Your task to perform on an android device: Open wifi settings Image 0: 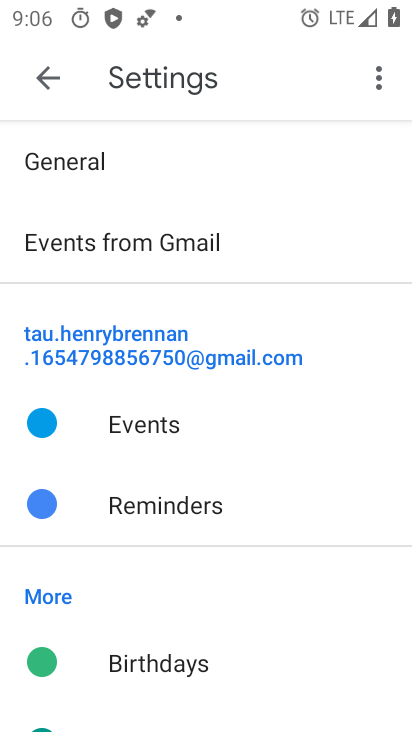
Step 0: press home button
Your task to perform on an android device: Open wifi settings Image 1: 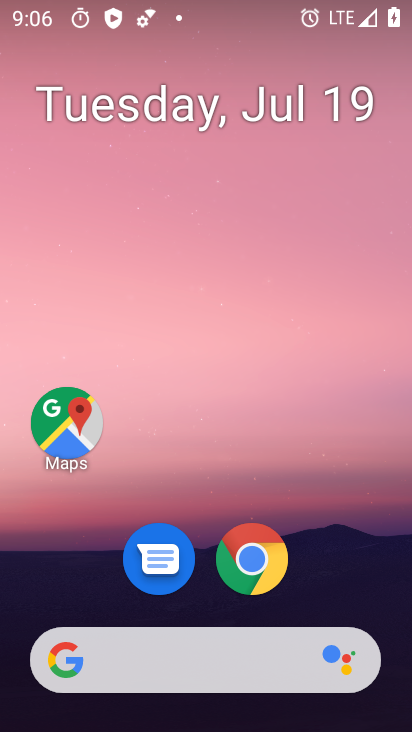
Step 1: drag from (369, 601) to (249, 220)
Your task to perform on an android device: Open wifi settings Image 2: 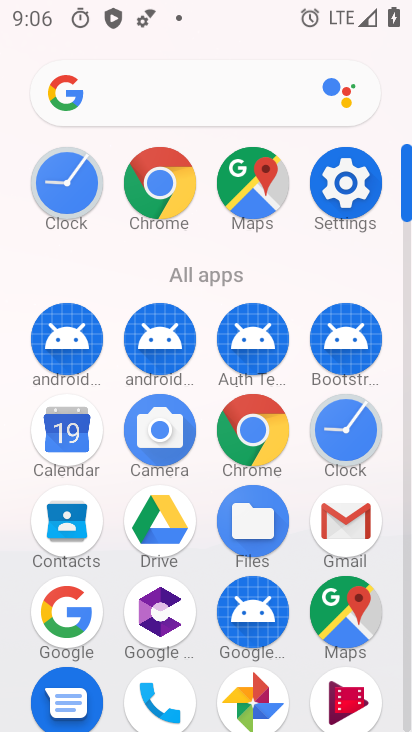
Step 2: click (361, 204)
Your task to perform on an android device: Open wifi settings Image 3: 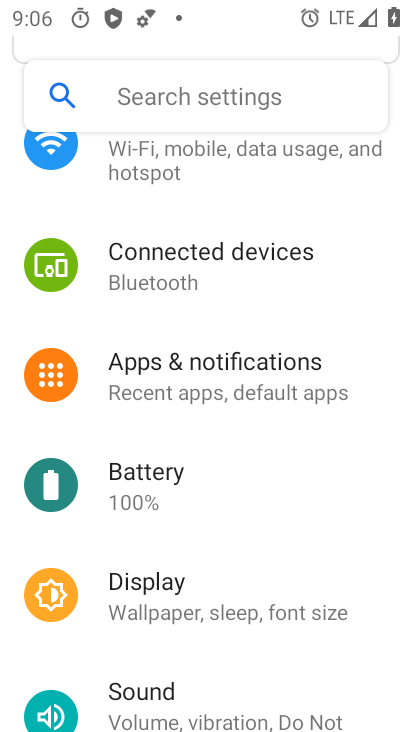
Step 3: click (263, 157)
Your task to perform on an android device: Open wifi settings Image 4: 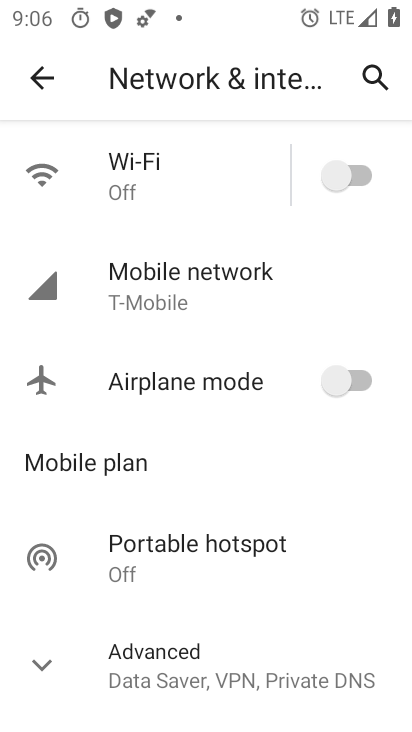
Step 4: click (221, 176)
Your task to perform on an android device: Open wifi settings Image 5: 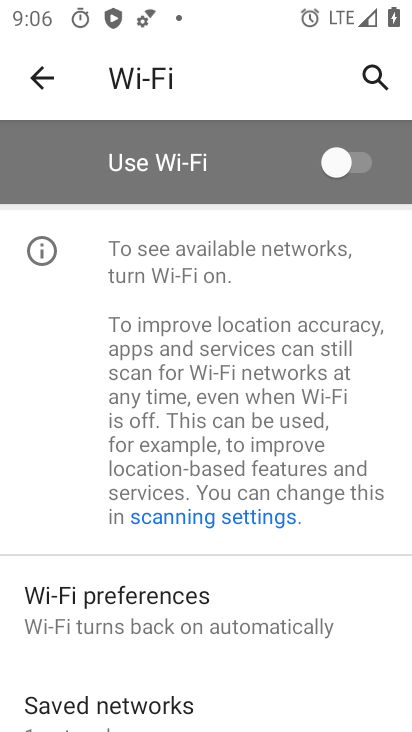
Step 5: task complete